Your task to perform on an android device: change the clock style Image 0: 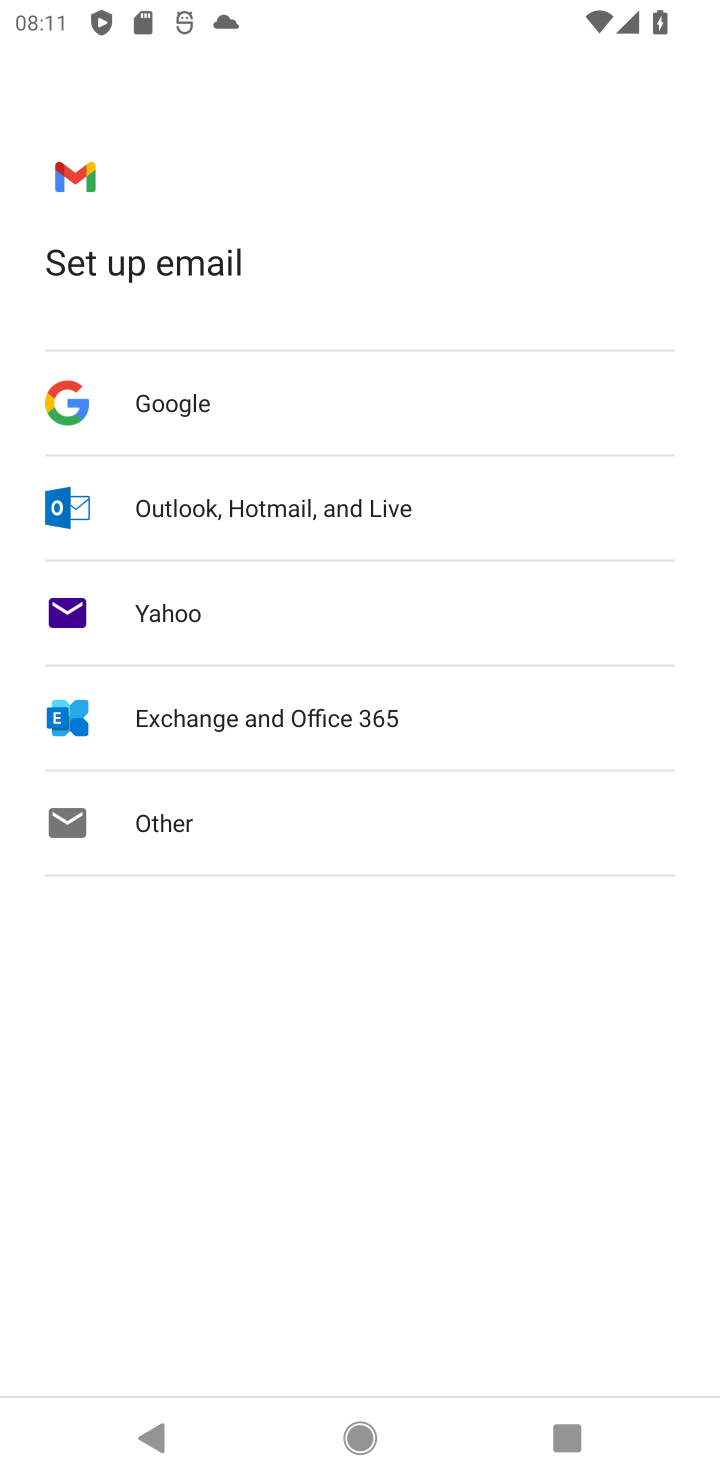
Step 0: press home button
Your task to perform on an android device: change the clock style Image 1: 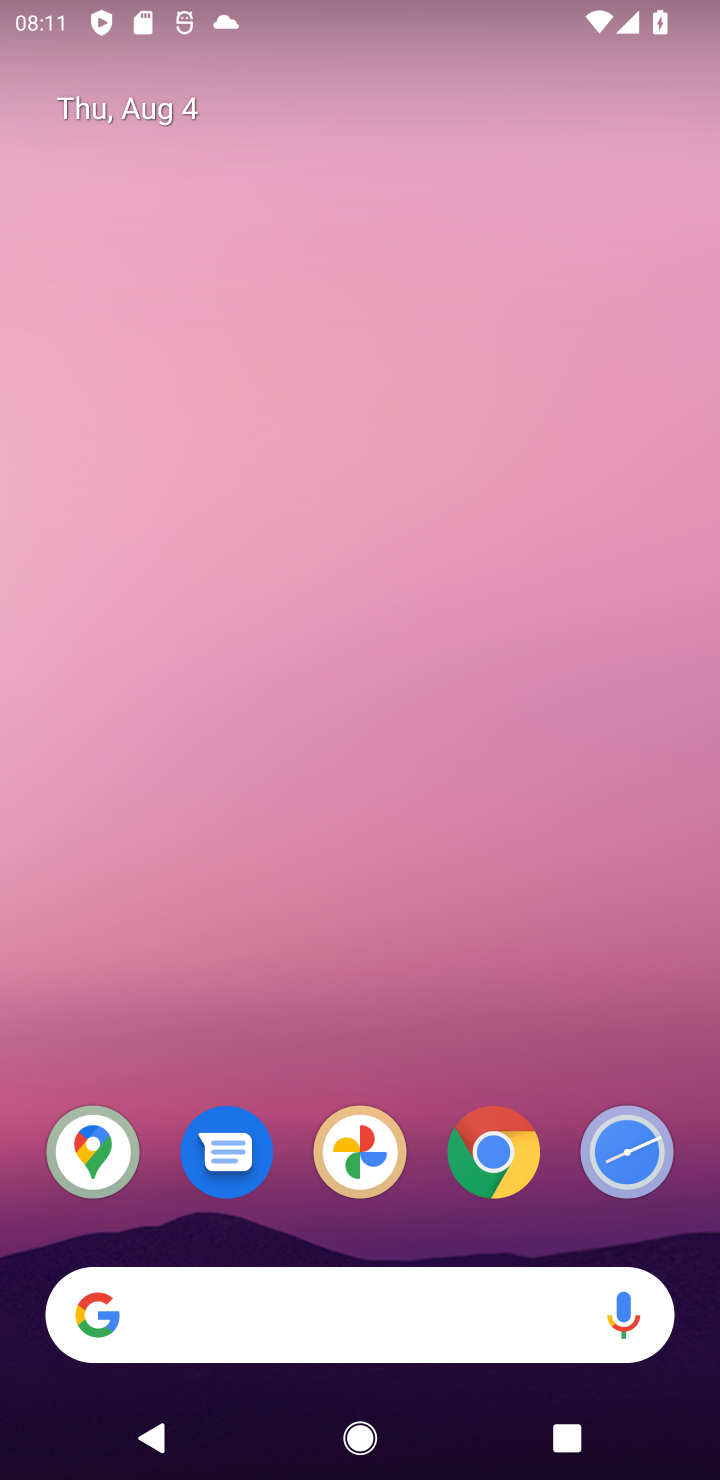
Step 1: drag from (342, 412) to (573, 92)
Your task to perform on an android device: change the clock style Image 2: 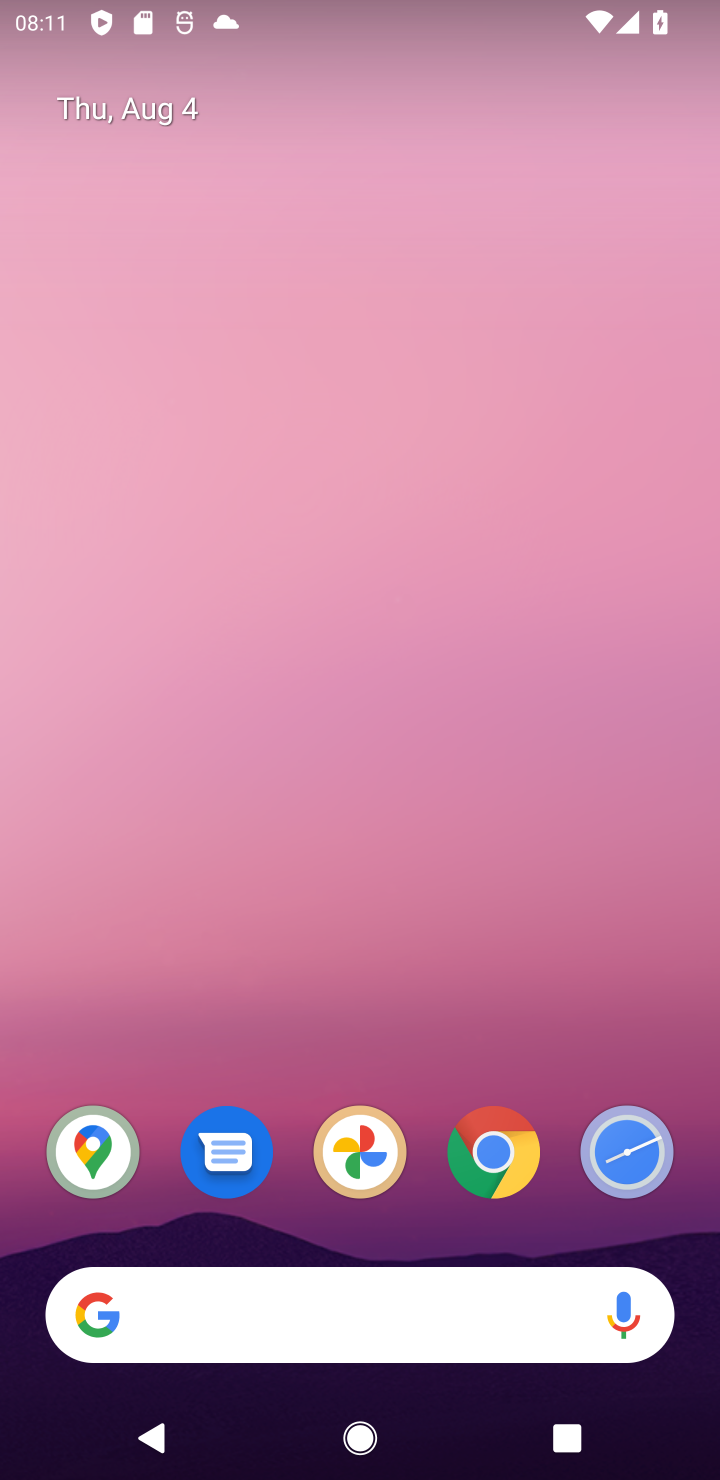
Step 2: click (635, 1141)
Your task to perform on an android device: change the clock style Image 3: 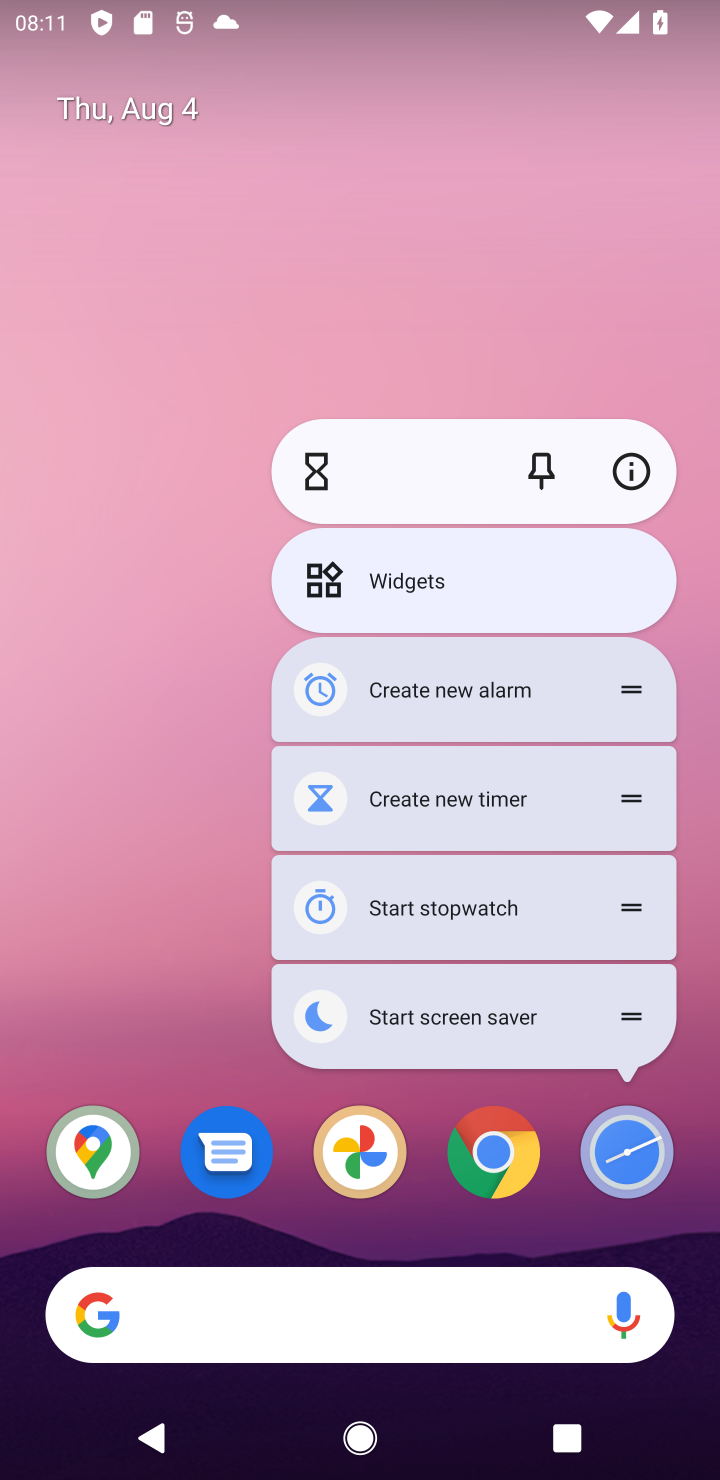
Step 3: click (651, 1128)
Your task to perform on an android device: change the clock style Image 4: 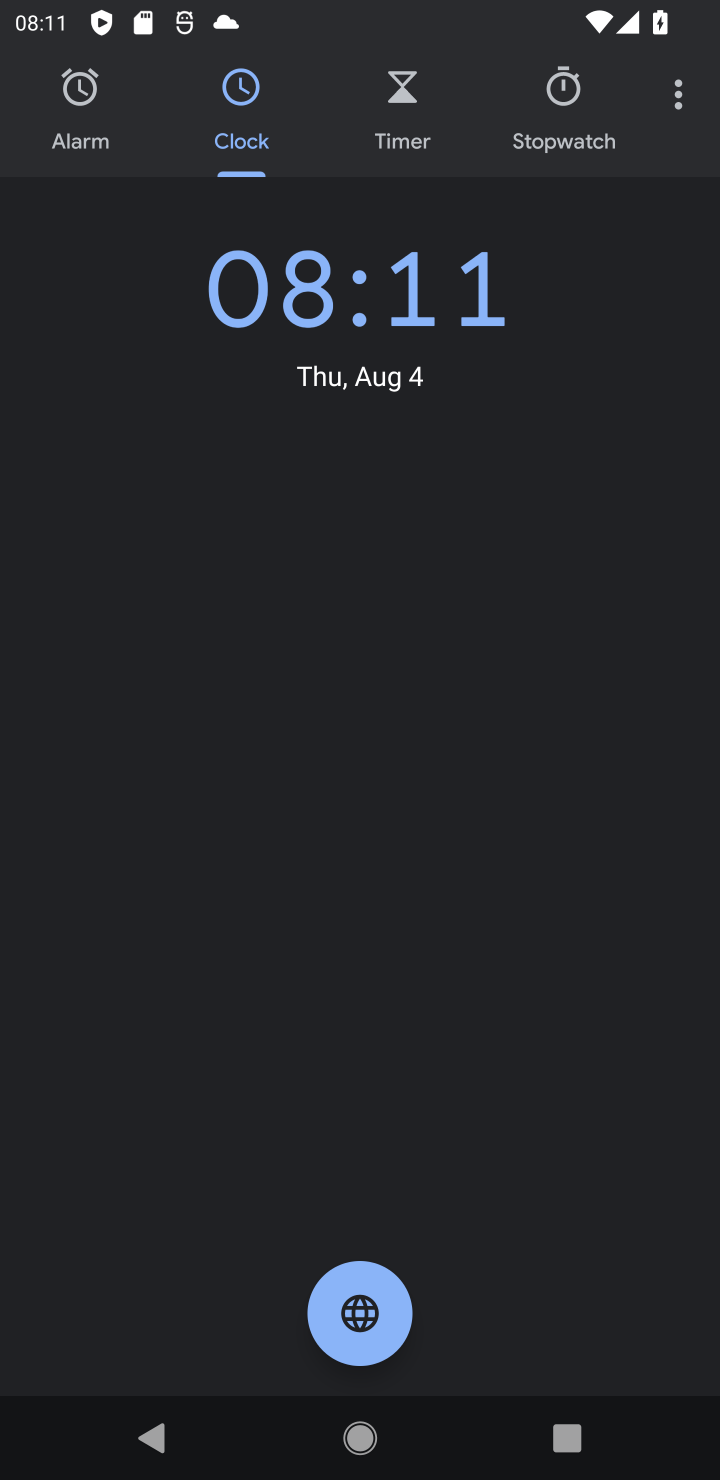
Step 4: click (687, 110)
Your task to perform on an android device: change the clock style Image 5: 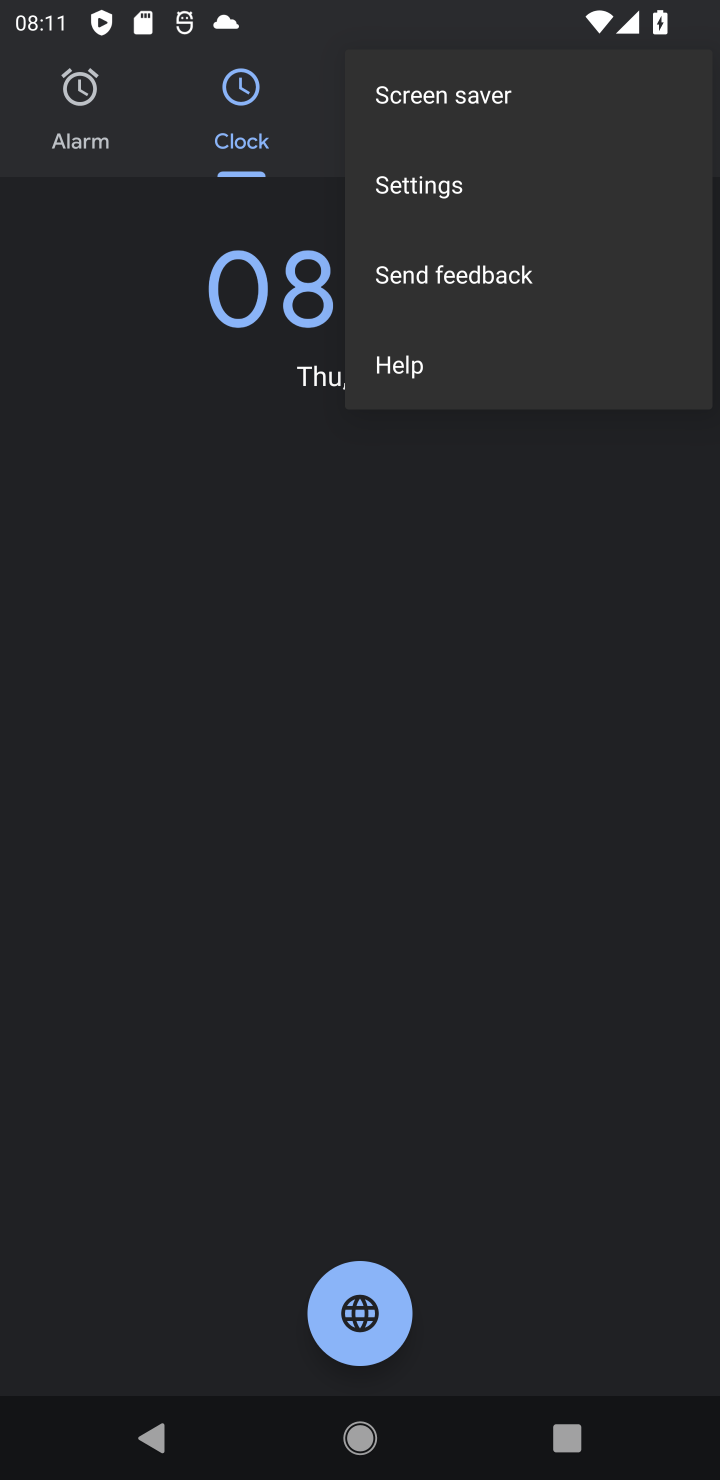
Step 5: click (432, 182)
Your task to perform on an android device: change the clock style Image 6: 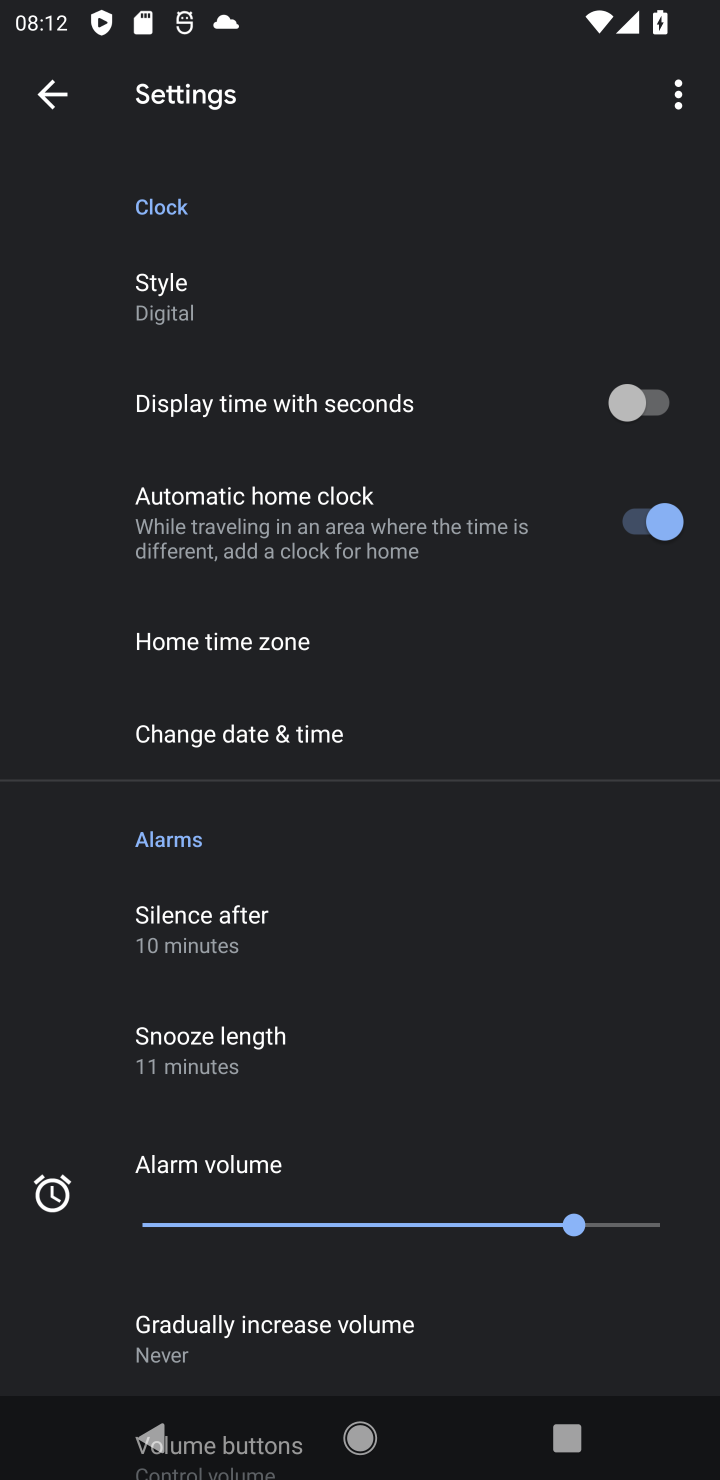
Step 6: click (203, 308)
Your task to perform on an android device: change the clock style Image 7: 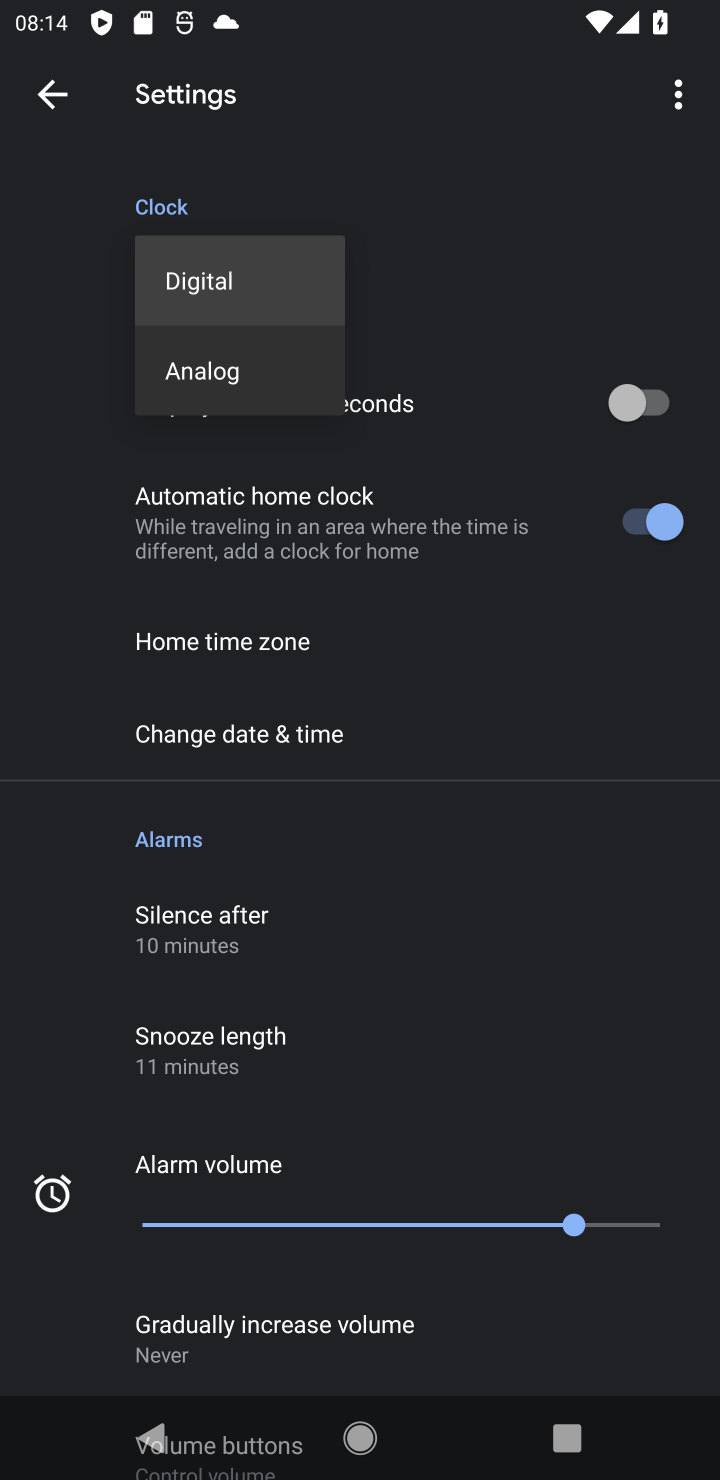
Step 7: click (224, 362)
Your task to perform on an android device: change the clock style Image 8: 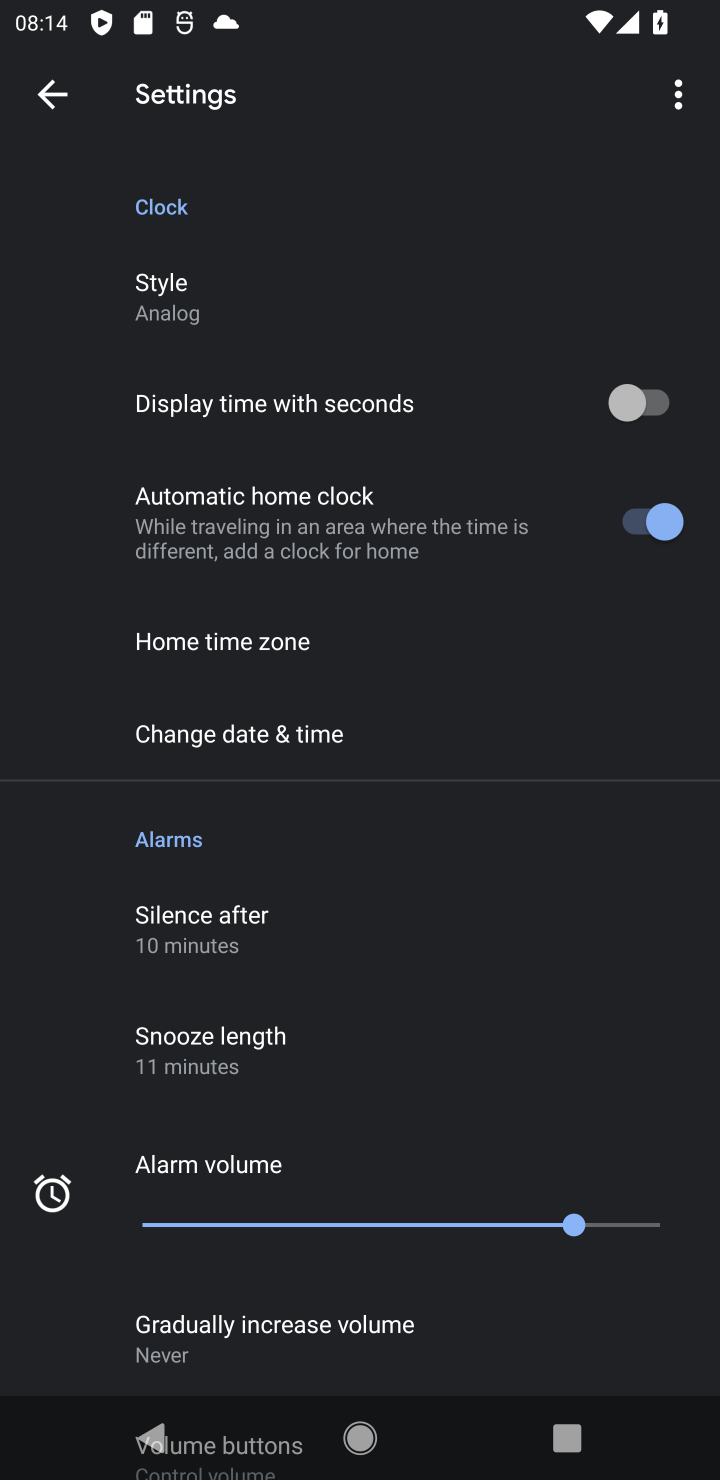
Step 8: task complete